Your task to perform on an android device: show emergency info Image 0: 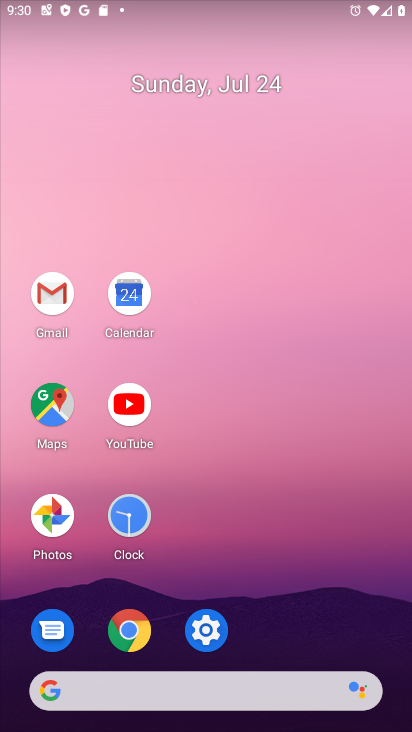
Step 0: click (206, 627)
Your task to perform on an android device: show emergency info Image 1: 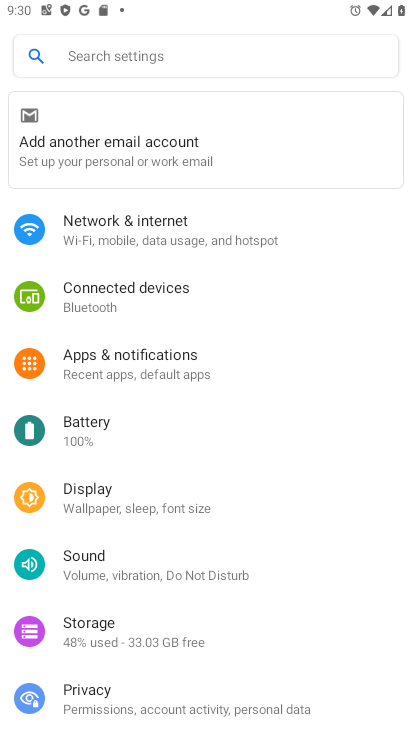
Step 1: drag from (227, 505) to (232, 267)
Your task to perform on an android device: show emergency info Image 2: 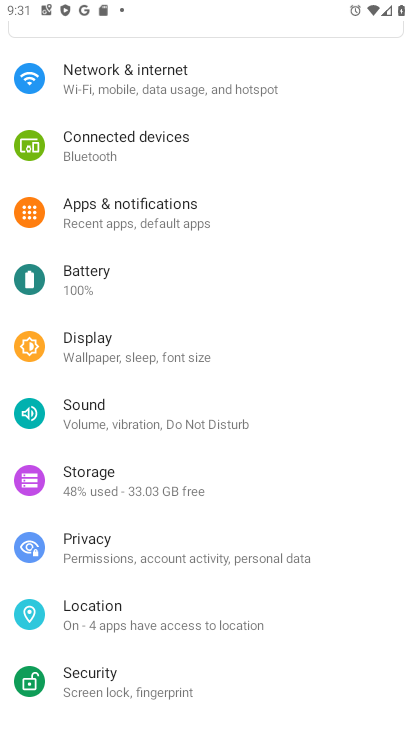
Step 2: drag from (189, 673) to (170, 228)
Your task to perform on an android device: show emergency info Image 3: 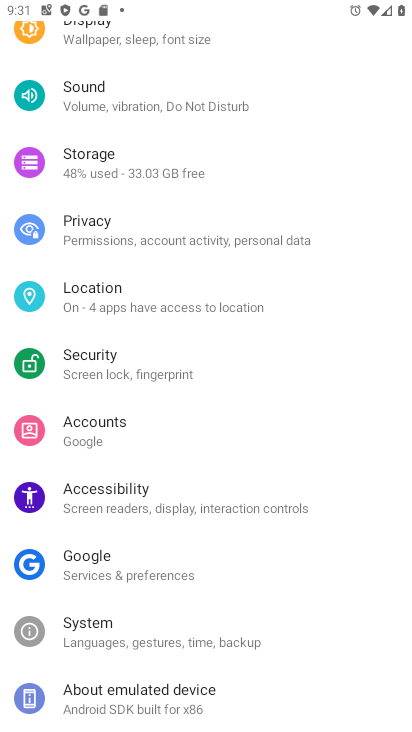
Step 3: click (151, 692)
Your task to perform on an android device: show emergency info Image 4: 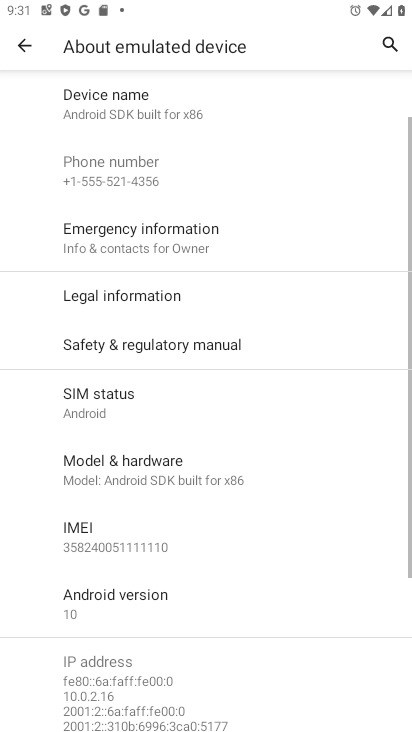
Step 4: click (129, 231)
Your task to perform on an android device: show emergency info Image 5: 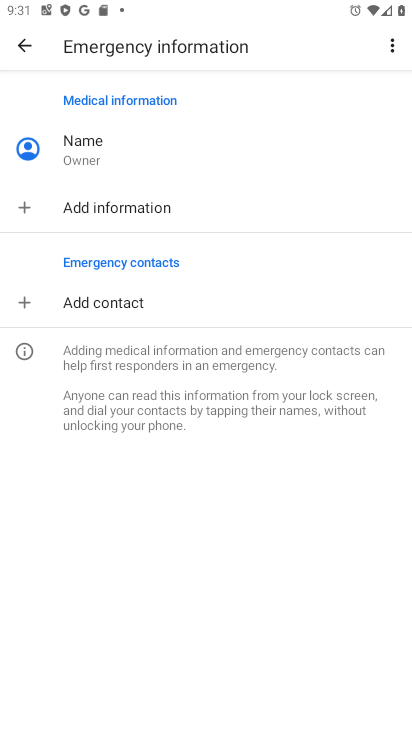
Step 5: task complete